Your task to perform on an android device: Go to wifi settings Image 0: 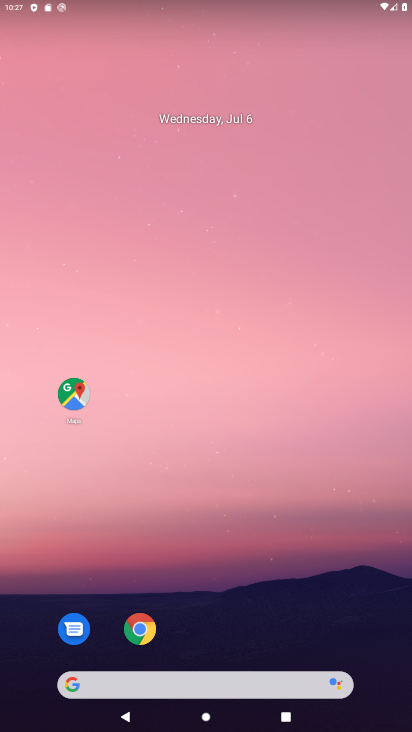
Step 0: drag from (225, 650) to (218, 91)
Your task to perform on an android device: Go to wifi settings Image 1: 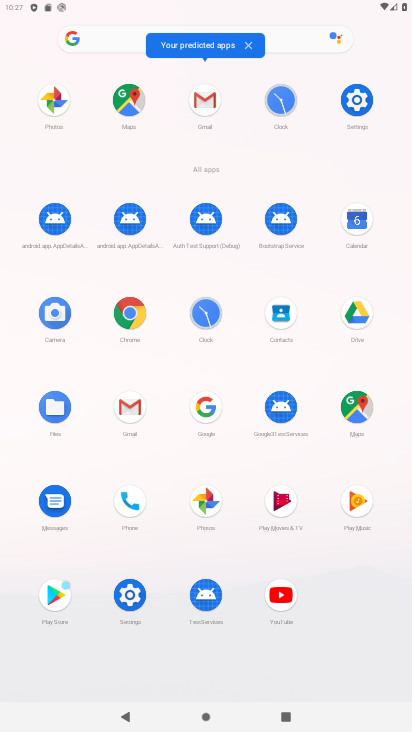
Step 1: click (352, 95)
Your task to perform on an android device: Go to wifi settings Image 2: 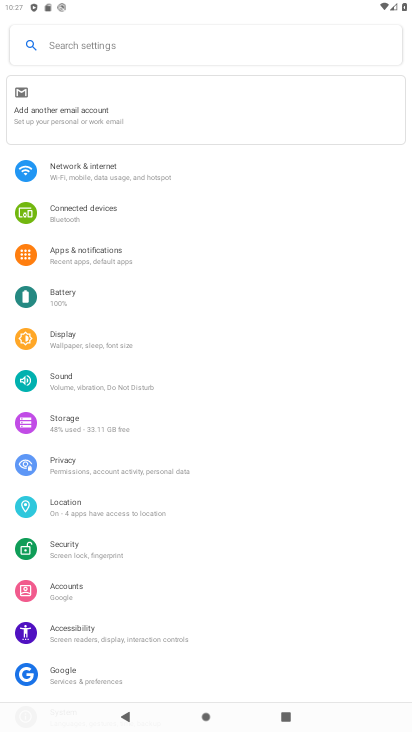
Step 2: click (101, 169)
Your task to perform on an android device: Go to wifi settings Image 3: 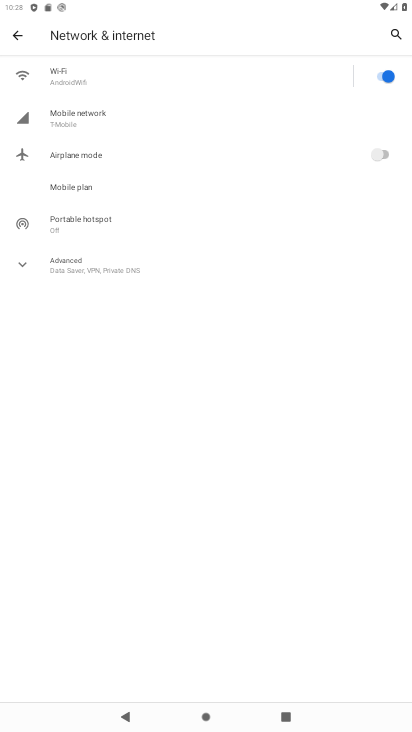
Step 3: click (263, 65)
Your task to perform on an android device: Go to wifi settings Image 4: 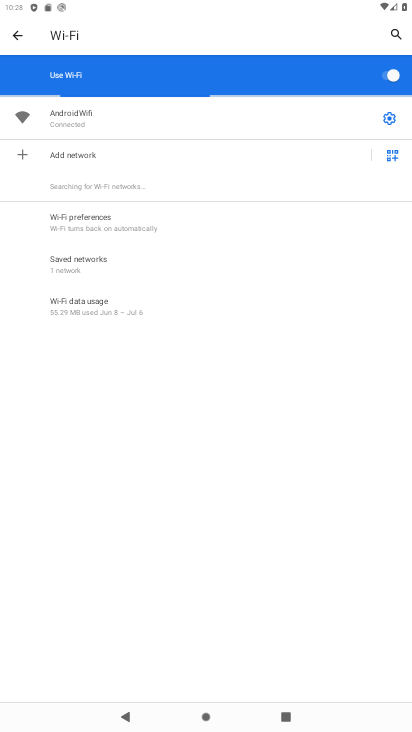
Step 4: task complete